Your task to perform on an android device: open app "Pluto TV - Live TV and Movies" (install if not already installed), go to login, and select forgot password Image 0: 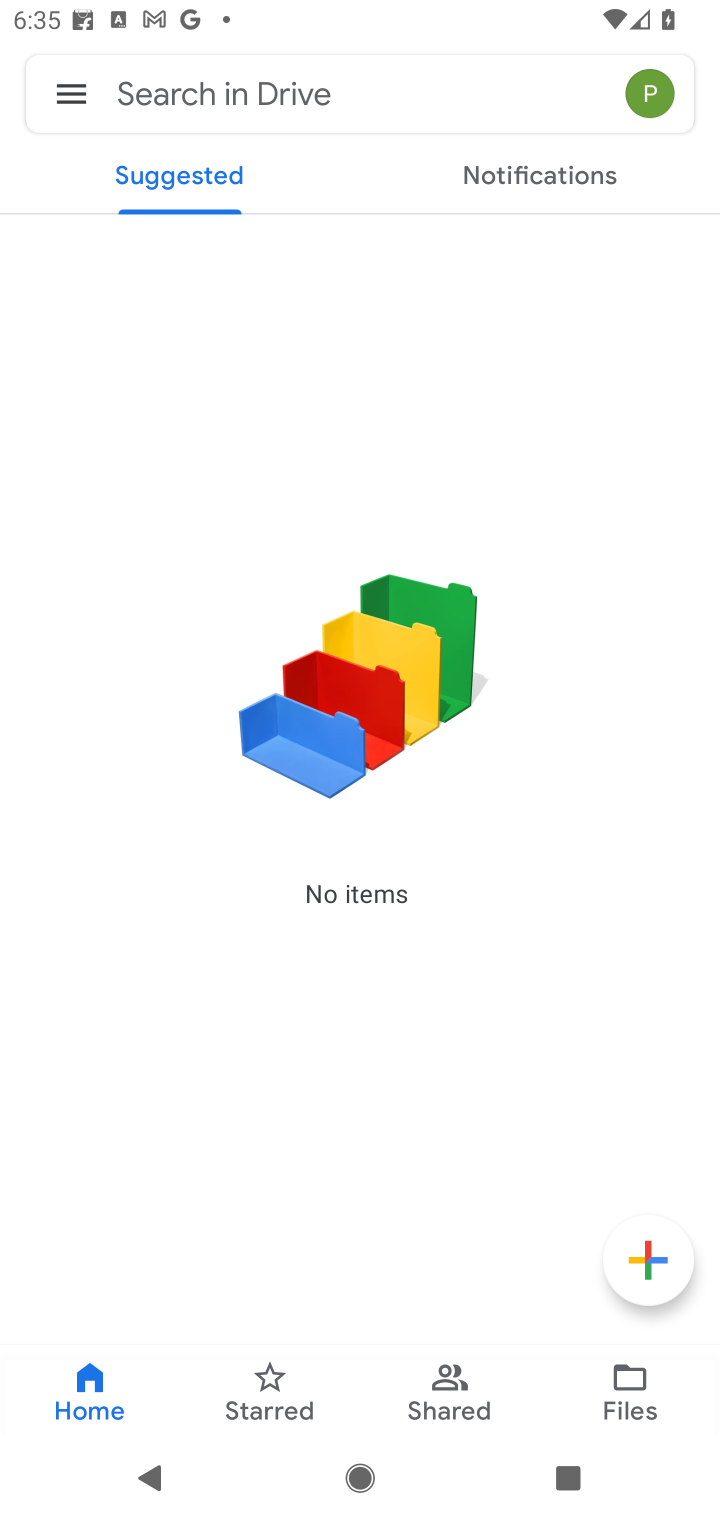
Step 0: press home button
Your task to perform on an android device: open app "Pluto TV - Live TV and Movies" (install if not already installed), go to login, and select forgot password Image 1: 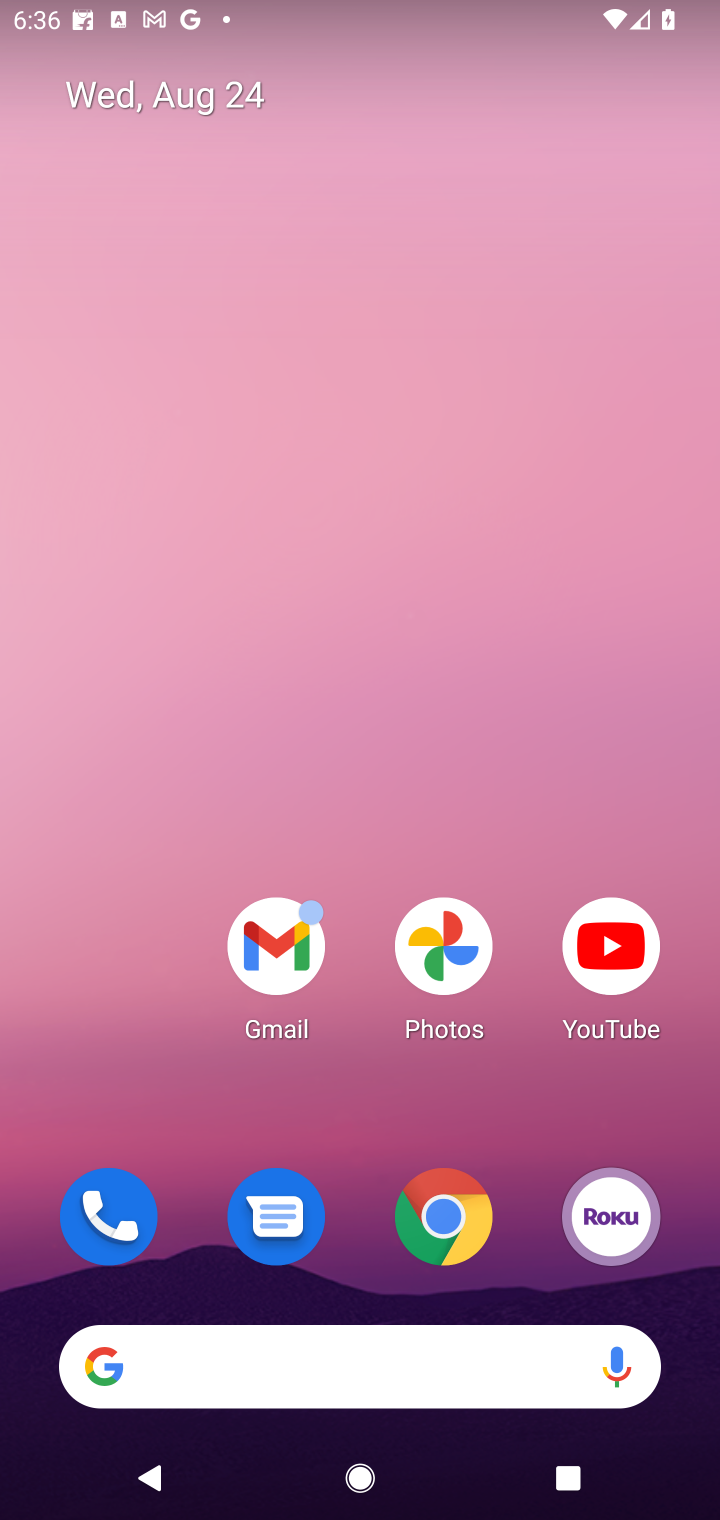
Step 1: drag from (379, 1098) to (409, 313)
Your task to perform on an android device: open app "Pluto TV - Live TV and Movies" (install if not already installed), go to login, and select forgot password Image 2: 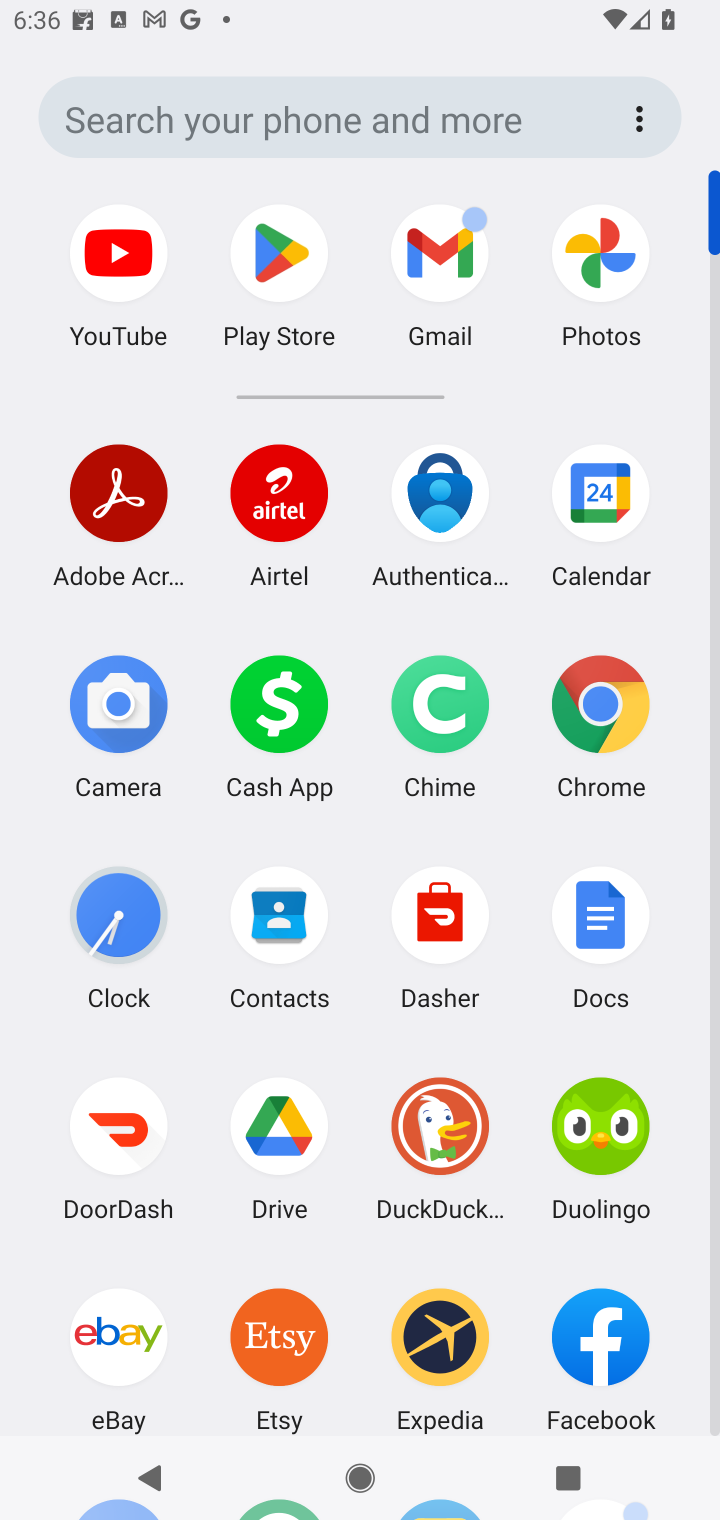
Step 2: click (263, 246)
Your task to perform on an android device: open app "Pluto TV - Live TV and Movies" (install if not already installed), go to login, and select forgot password Image 3: 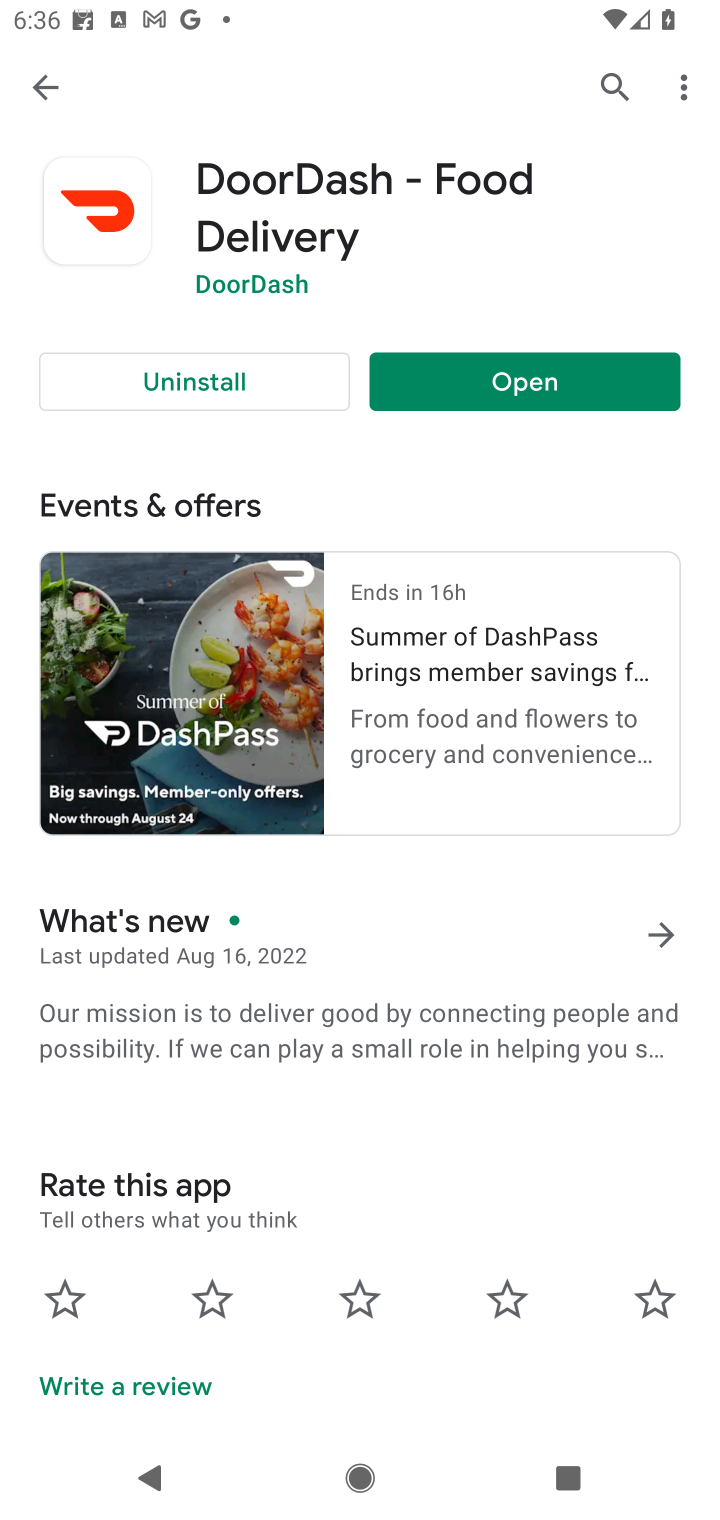
Step 3: click (594, 69)
Your task to perform on an android device: open app "Pluto TV - Live TV and Movies" (install if not already installed), go to login, and select forgot password Image 4: 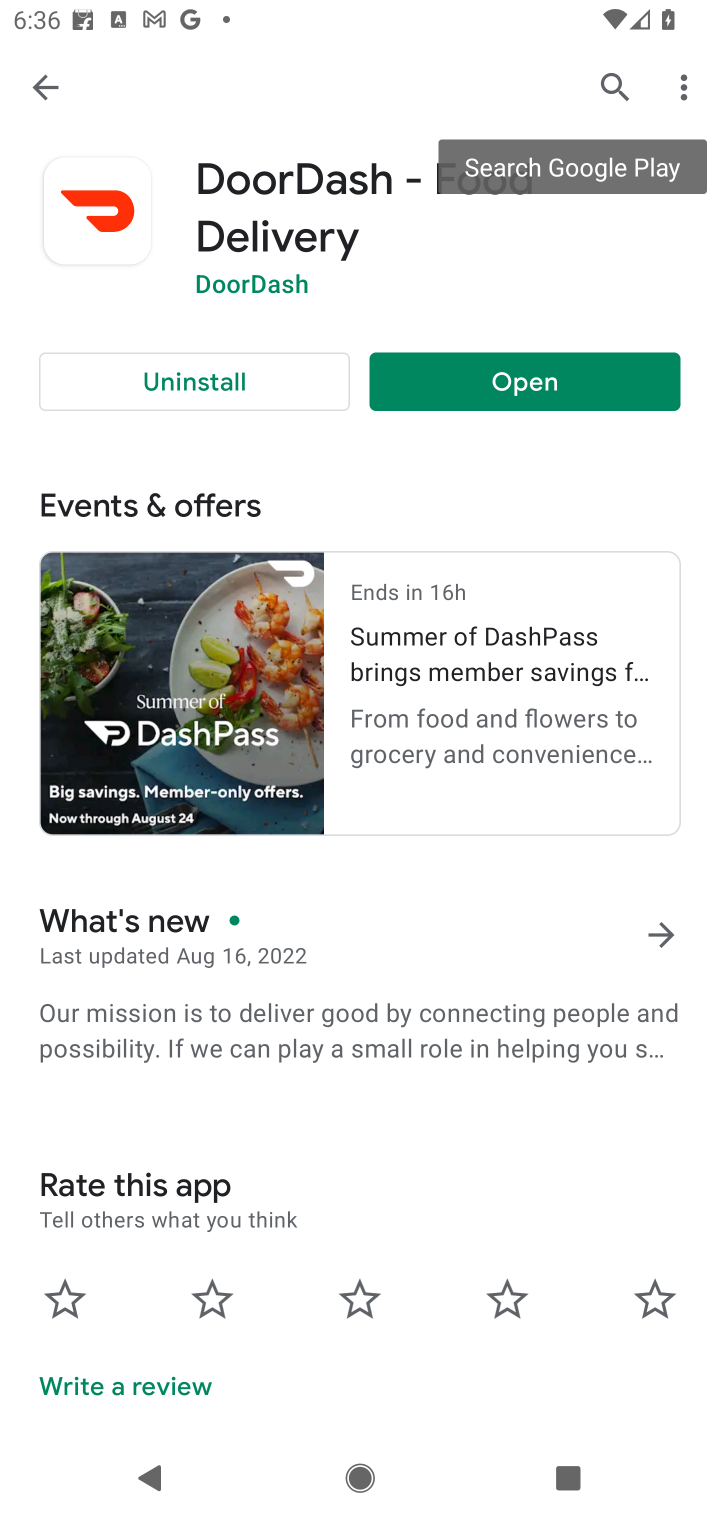
Step 4: click (616, 82)
Your task to perform on an android device: open app "Pluto TV - Live TV and Movies" (install if not already installed), go to login, and select forgot password Image 5: 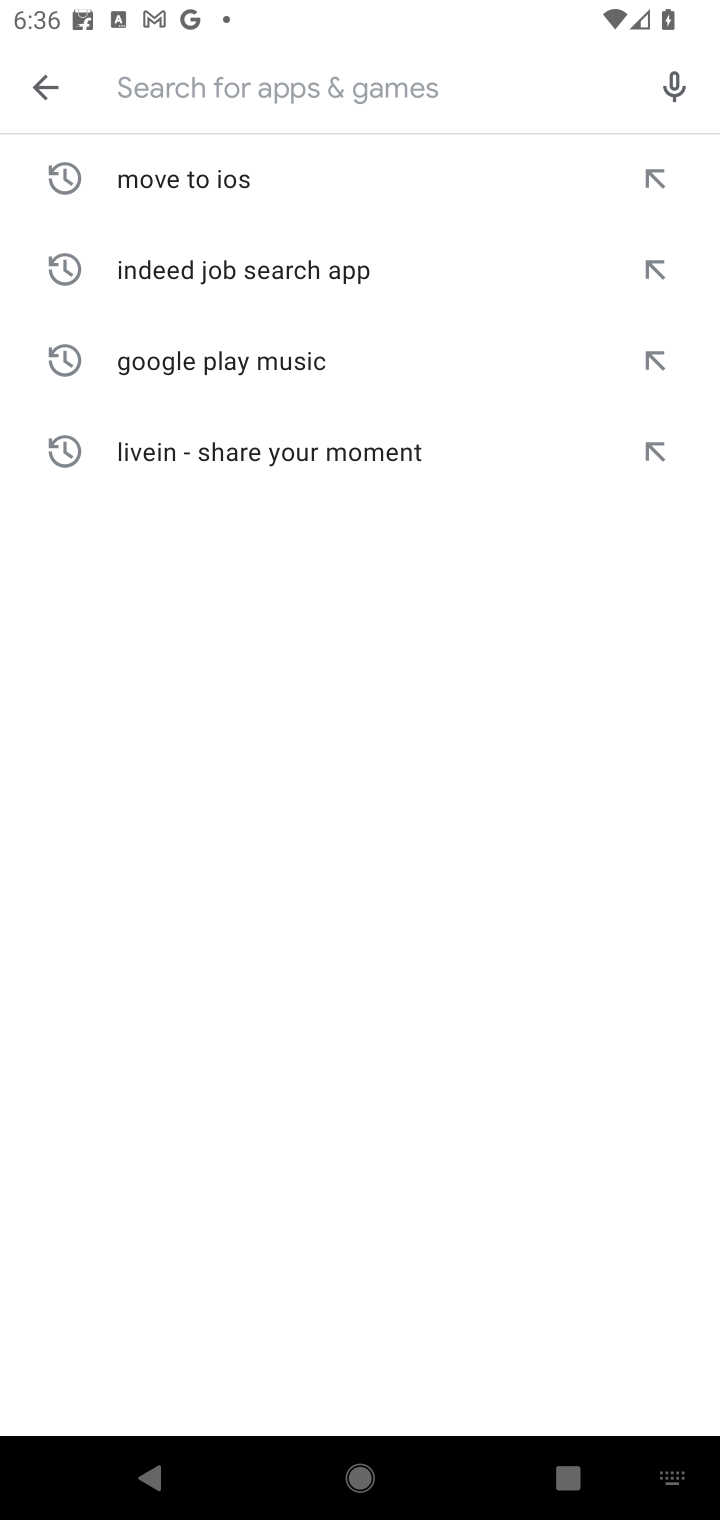
Step 5: type "Pluto TV - Live TV and Movies"
Your task to perform on an android device: open app "Pluto TV - Live TV and Movies" (install if not already installed), go to login, and select forgot password Image 6: 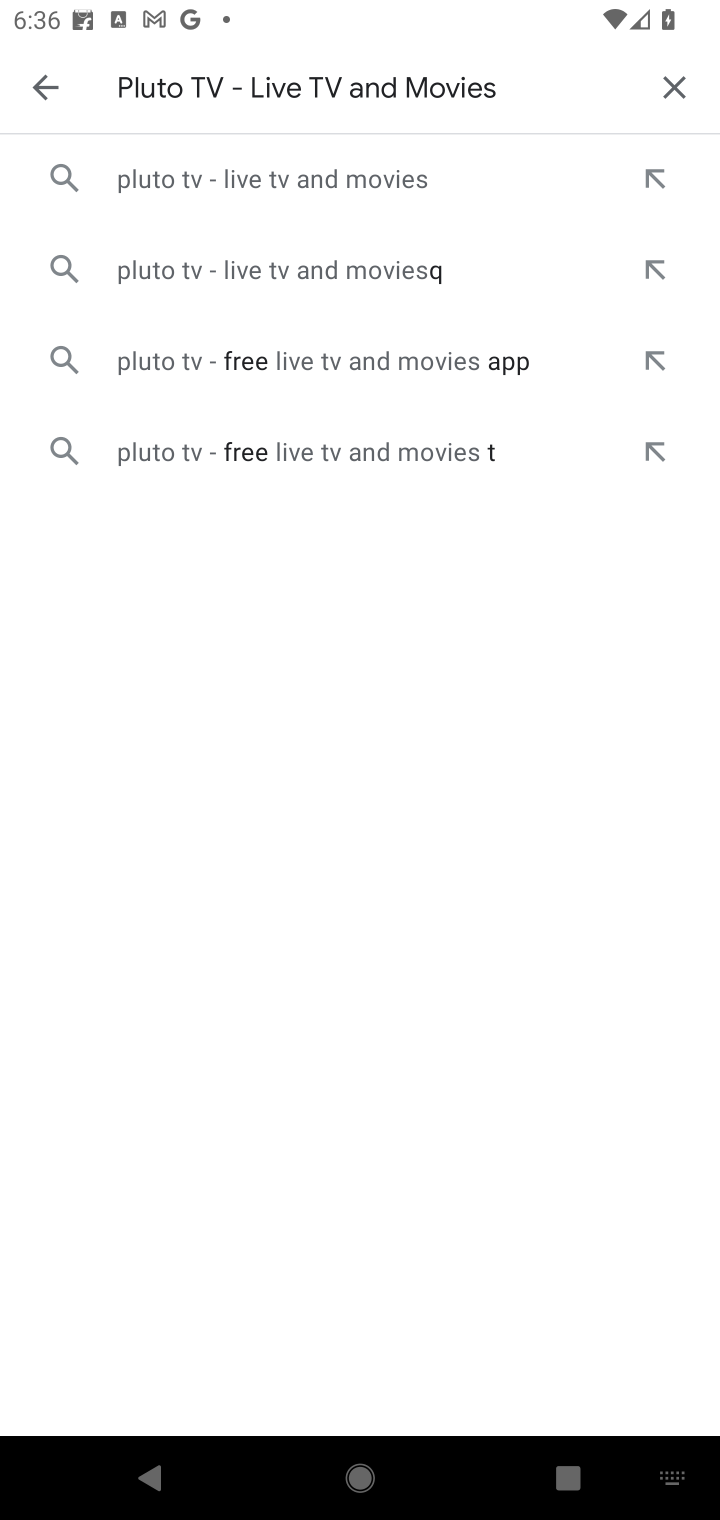
Step 6: click (233, 164)
Your task to perform on an android device: open app "Pluto TV - Live TV and Movies" (install if not already installed), go to login, and select forgot password Image 7: 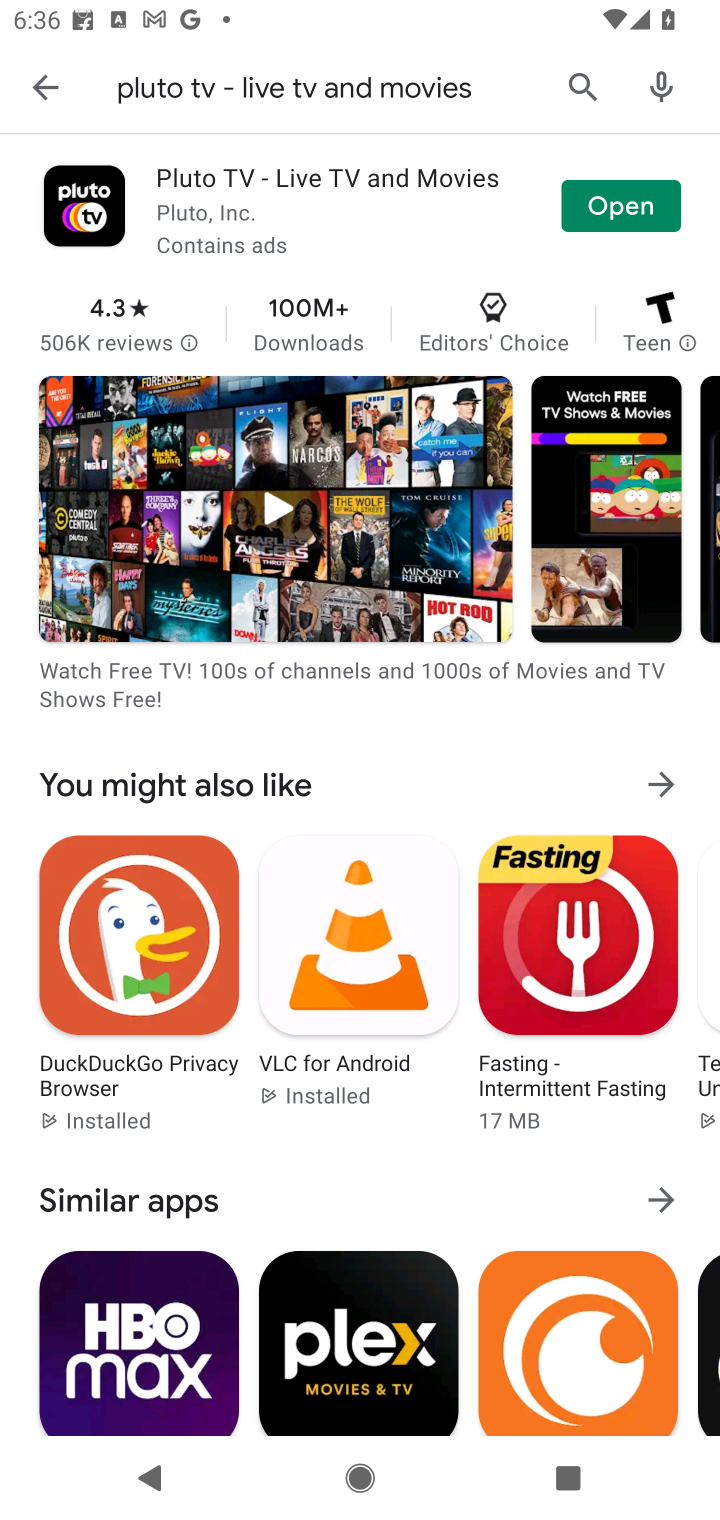
Step 7: click (658, 209)
Your task to perform on an android device: open app "Pluto TV - Live TV and Movies" (install if not already installed), go to login, and select forgot password Image 8: 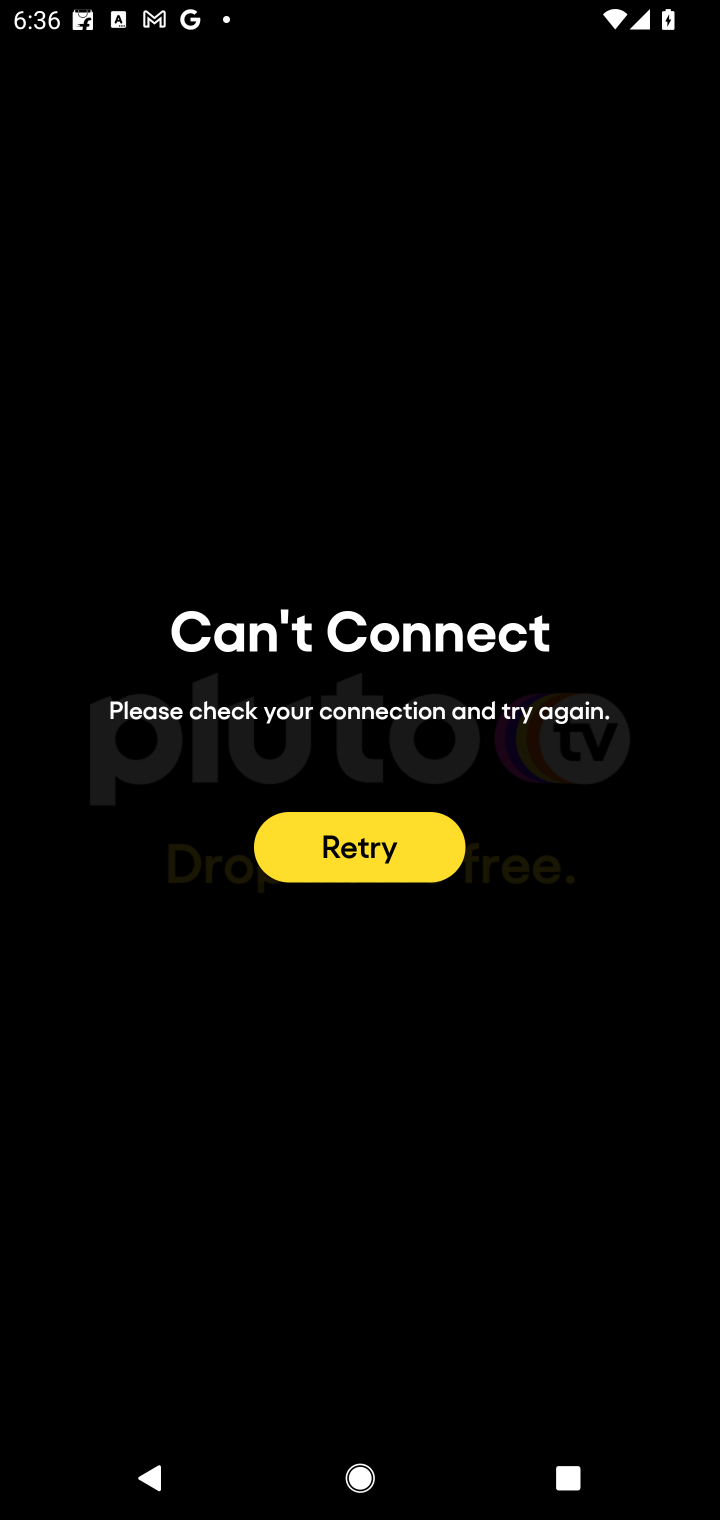
Step 8: task complete